Your task to perform on an android device: Open the web browser Image 0: 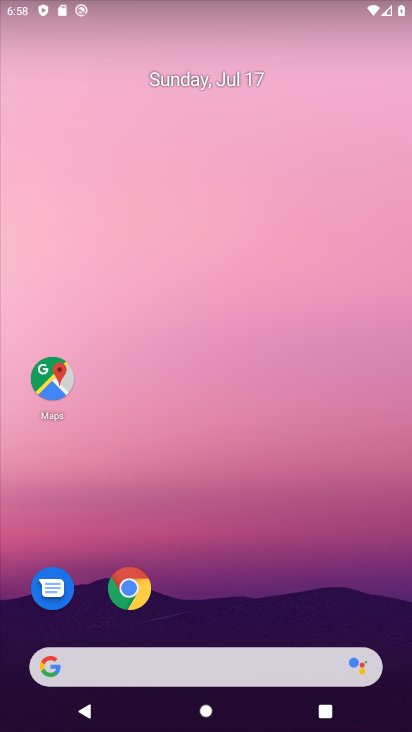
Step 0: drag from (275, 622) to (139, 10)
Your task to perform on an android device: Open the web browser Image 1: 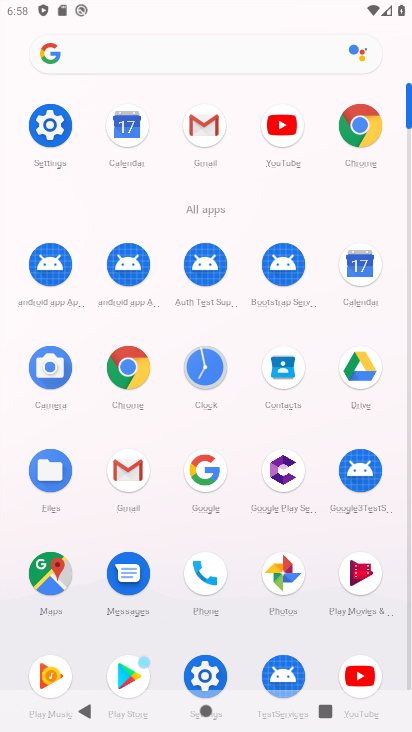
Step 1: click (216, 463)
Your task to perform on an android device: Open the web browser Image 2: 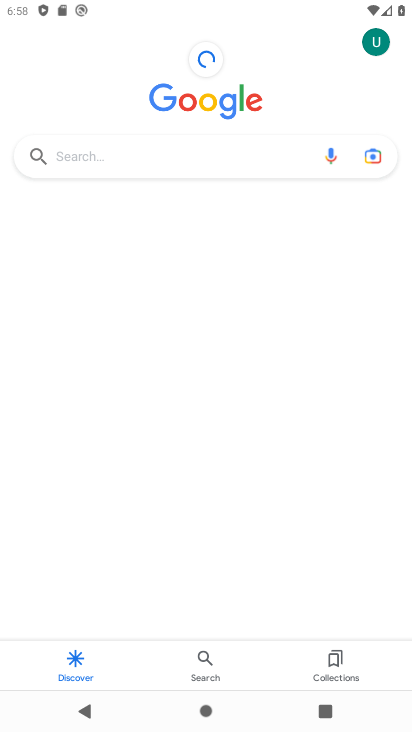
Step 2: click (124, 160)
Your task to perform on an android device: Open the web browser Image 3: 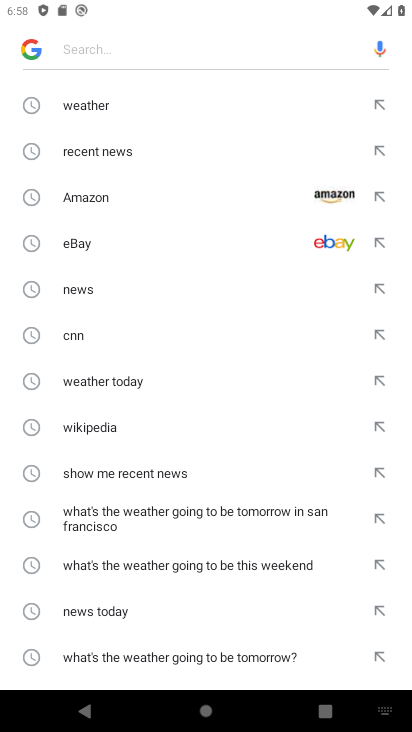
Step 3: type "web browser"
Your task to perform on an android device: Open the web browser Image 4: 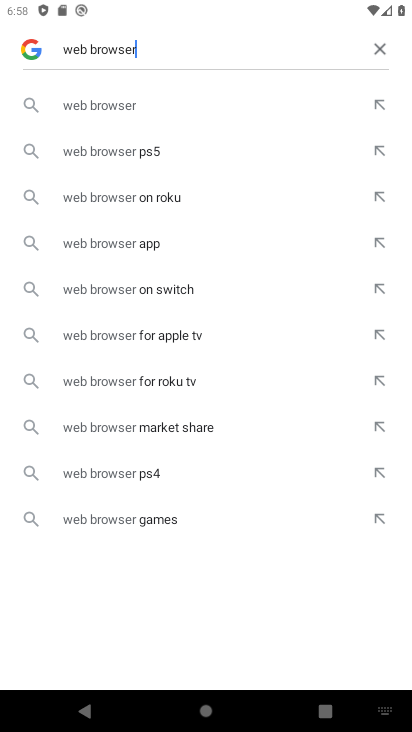
Step 4: click (144, 97)
Your task to perform on an android device: Open the web browser Image 5: 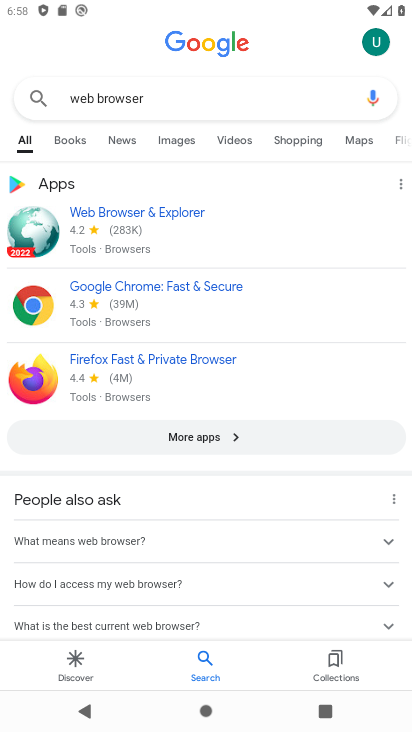
Step 5: task complete